Your task to perform on an android device: turn off translation in the chrome app Image 0: 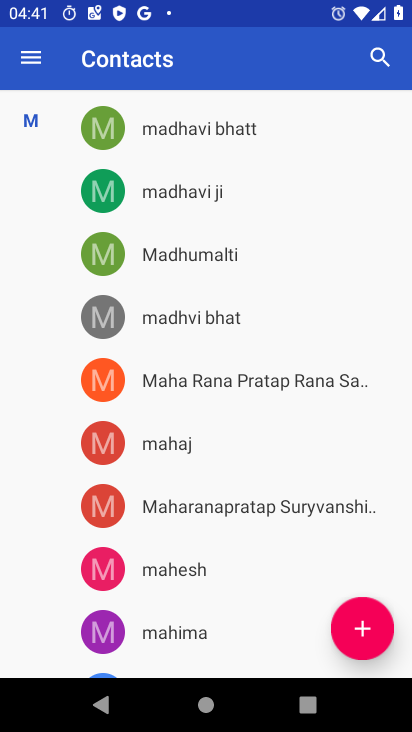
Step 0: press home button
Your task to perform on an android device: turn off translation in the chrome app Image 1: 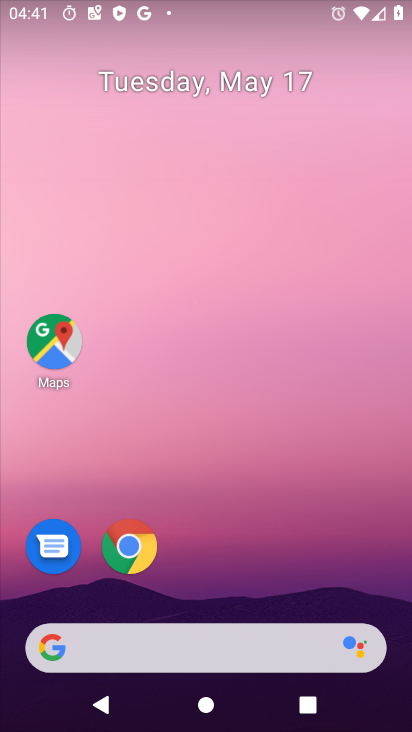
Step 1: click (116, 547)
Your task to perform on an android device: turn off translation in the chrome app Image 2: 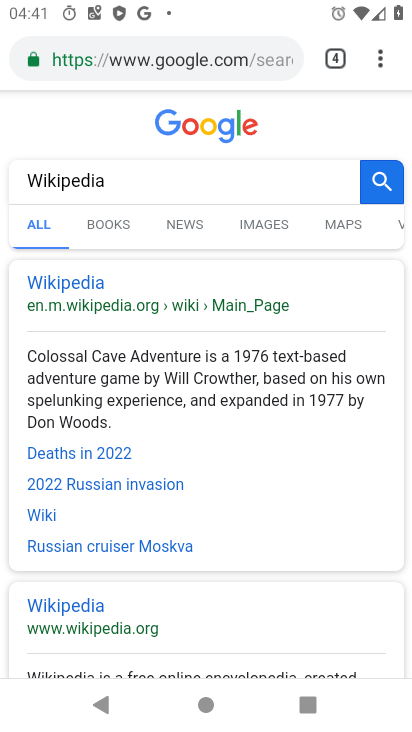
Step 2: click (376, 59)
Your task to perform on an android device: turn off translation in the chrome app Image 3: 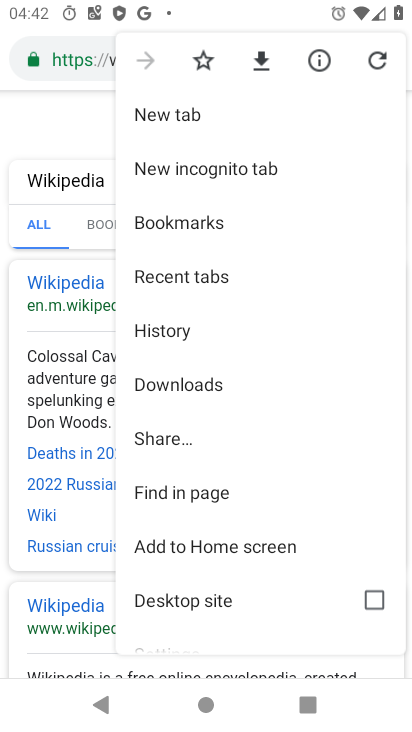
Step 3: drag from (289, 606) to (293, 375)
Your task to perform on an android device: turn off translation in the chrome app Image 4: 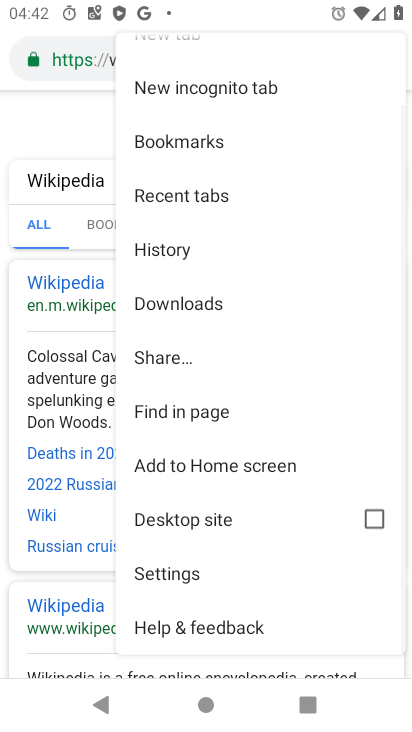
Step 4: click (186, 569)
Your task to perform on an android device: turn off translation in the chrome app Image 5: 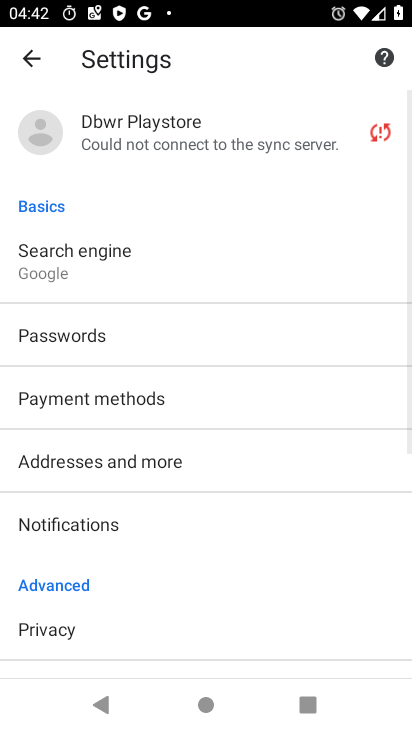
Step 5: click (242, 327)
Your task to perform on an android device: turn off translation in the chrome app Image 6: 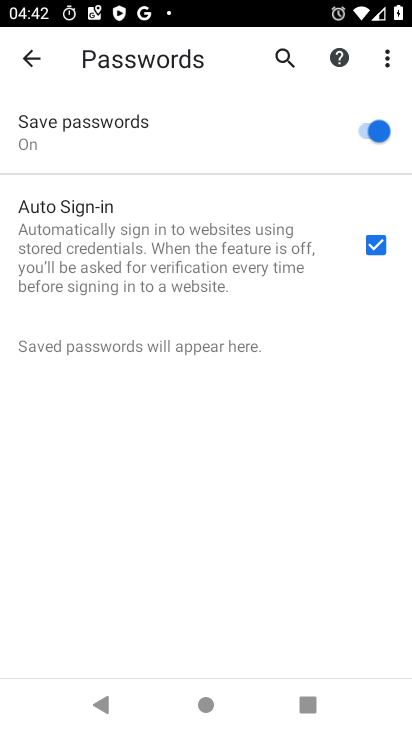
Step 6: click (32, 60)
Your task to perform on an android device: turn off translation in the chrome app Image 7: 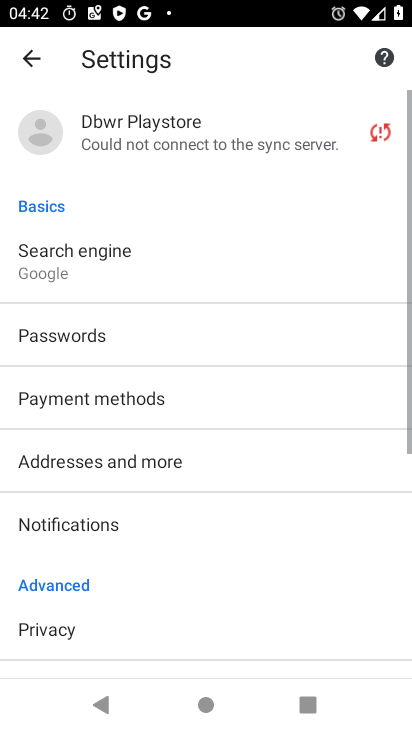
Step 7: drag from (288, 592) to (262, 391)
Your task to perform on an android device: turn off translation in the chrome app Image 8: 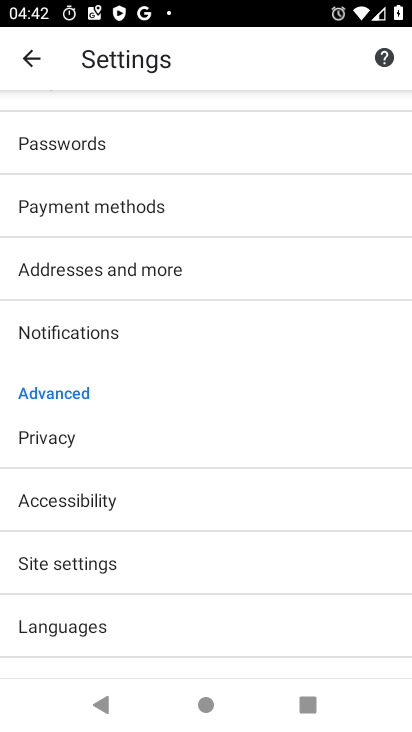
Step 8: click (91, 625)
Your task to perform on an android device: turn off translation in the chrome app Image 9: 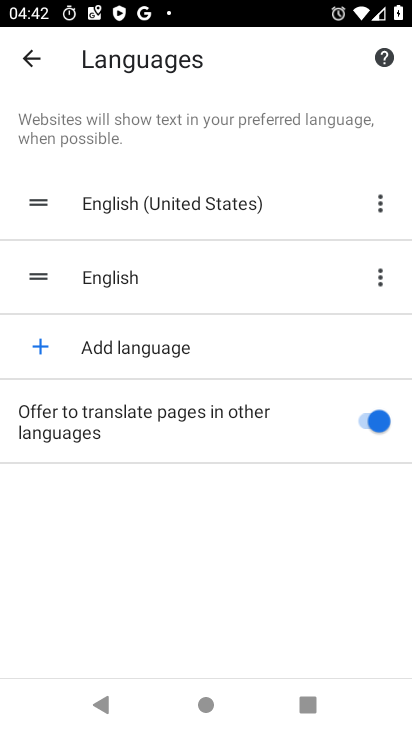
Step 9: click (361, 423)
Your task to perform on an android device: turn off translation in the chrome app Image 10: 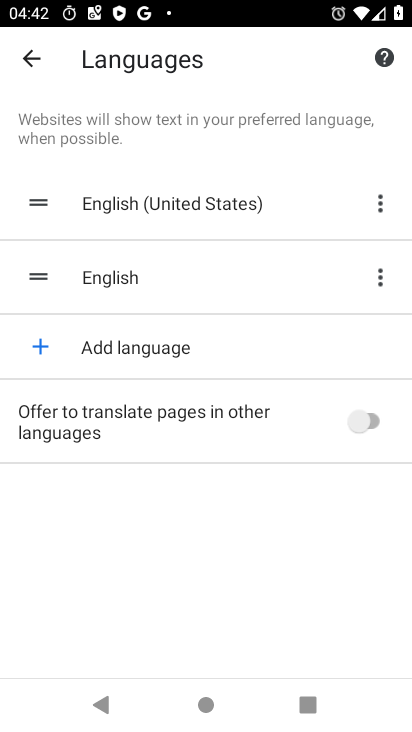
Step 10: task complete